Your task to perform on an android device: Open Google Maps and go to "Timeline" Image 0: 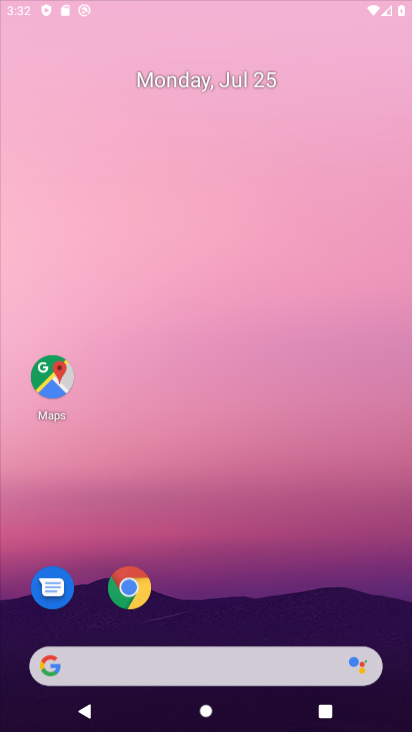
Step 0: click (216, 73)
Your task to perform on an android device: Open Google Maps and go to "Timeline" Image 1: 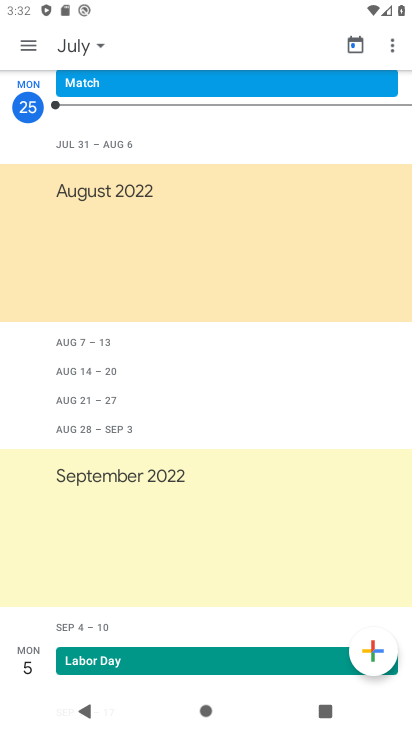
Step 1: drag from (183, 429) to (239, 171)
Your task to perform on an android device: Open Google Maps and go to "Timeline" Image 2: 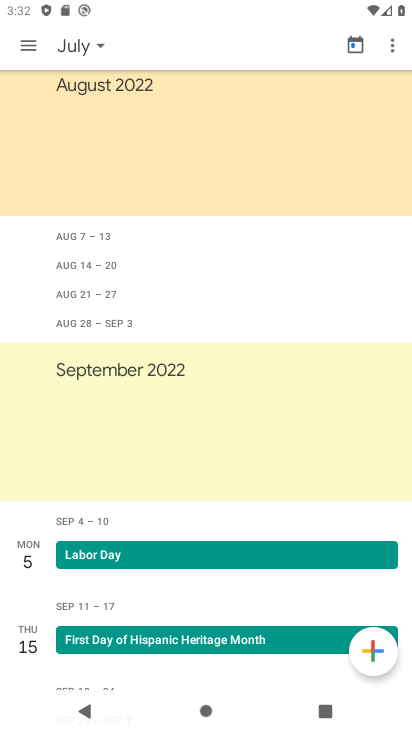
Step 2: press back button
Your task to perform on an android device: Open Google Maps and go to "Timeline" Image 3: 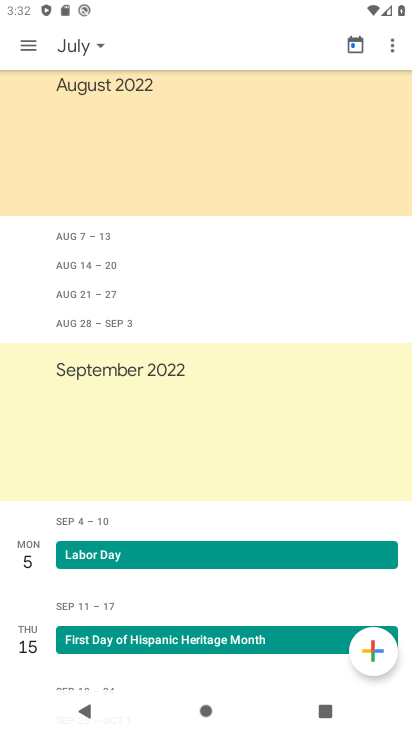
Step 3: press back button
Your task to perform on an android device: Open Google Maps and go to "Timeline" Image 4: 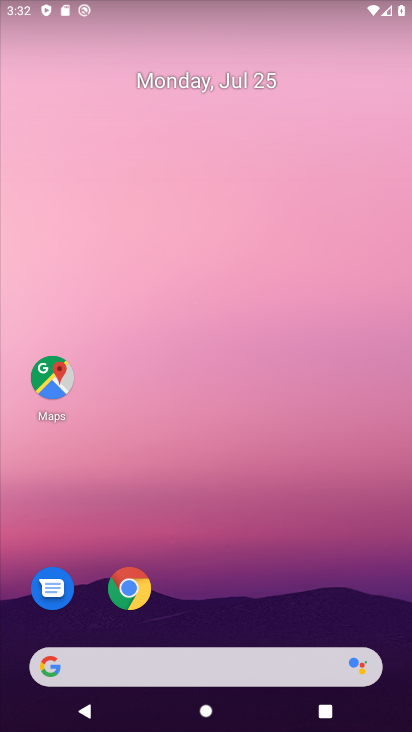
Step 4: drag from (232, 610) to (188, 182)
Your task to perform on an android device: Open Google Maps and go to "Timeline" Image 5: 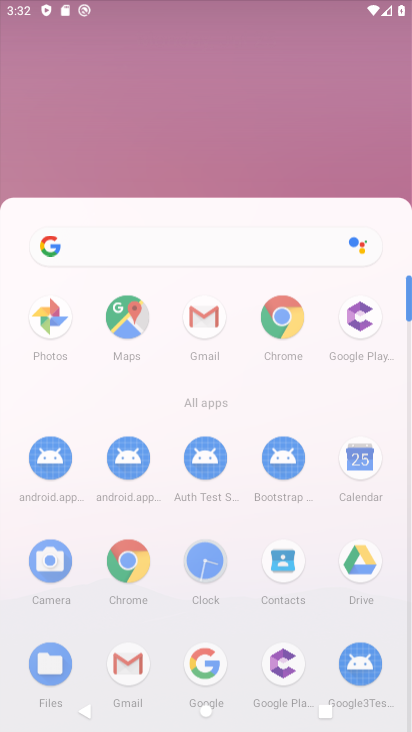
Step 5: drag from (209, 526) to (204, 9)
Your task to perform on an android device: Open Google Maps and go to "Timeline" Image 6: 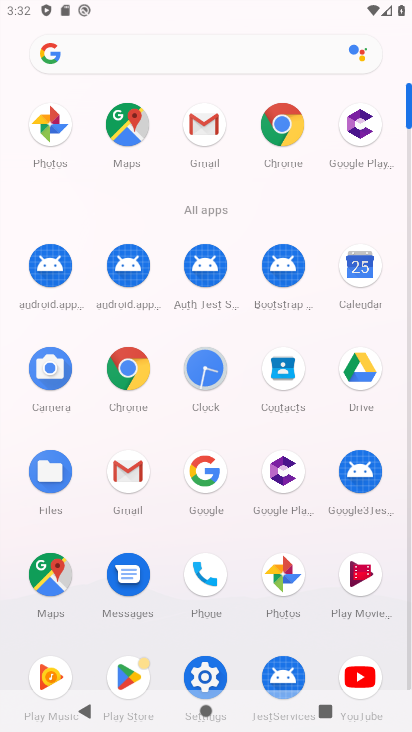
Step 6: drag from (204, 308) to (248, 33)
Your task to perform on an android device: Open Google Maps and go to "Timeline" Image 7: 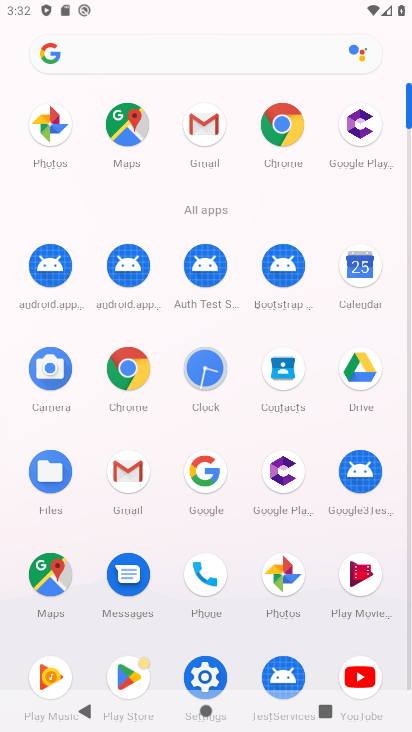
Step 7: click (46, 567)
Your task to perform on an android device: Open Google Maps and go to "Timeline" Image 8: 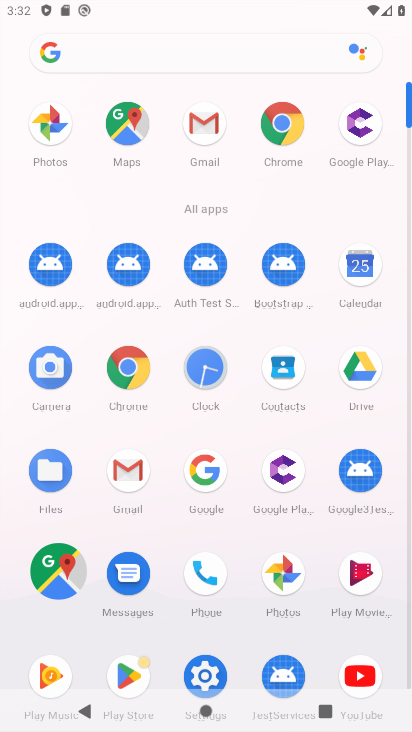
Step 8: click (46, 567)
Your task to perform on an android device: Open Google Maps and go to "Timeline" Image 9: 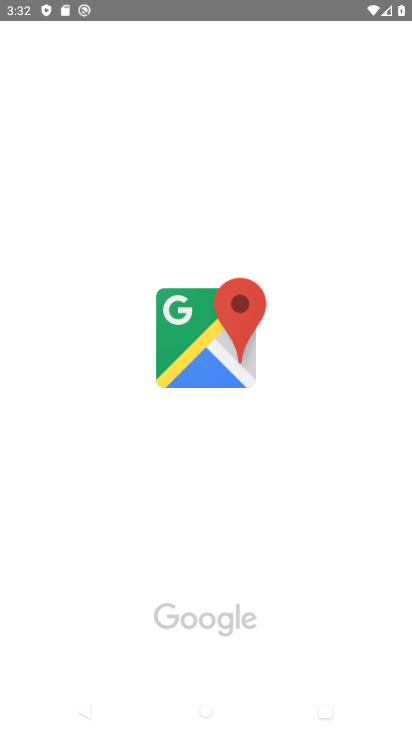
Step 9: click (46, 567)
Your task to perform on an android device: Open Google Maps and go to "Timeline" Image 10: 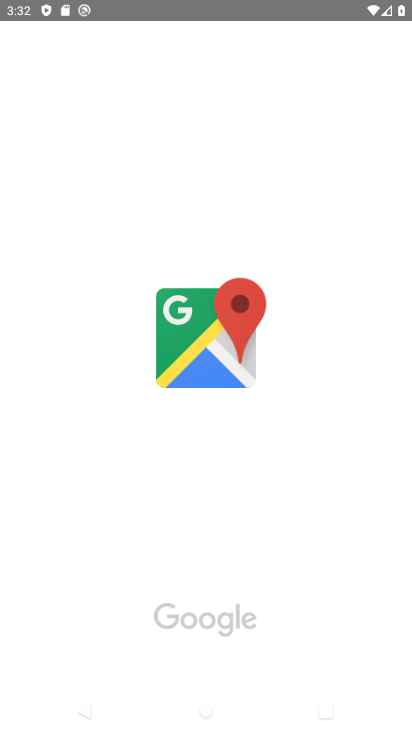
Step 10: click (220, 330)
Your task to perform on an android device: Open Google Maps and go to "Timeline" Image 11: 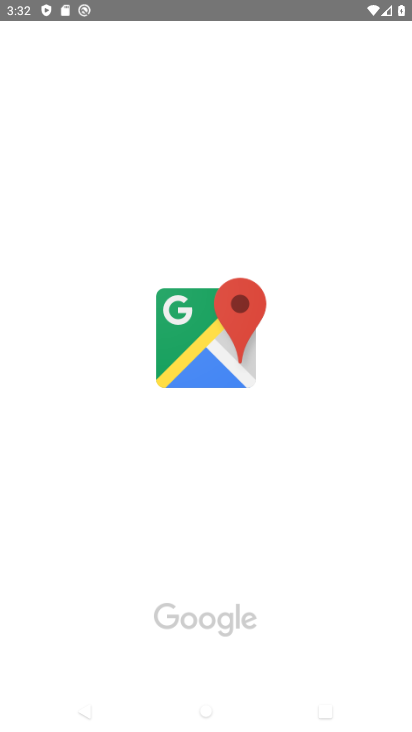
Step 11: click (220, 330)
Your task to perform on an android device: Open Google Maps and go to "Timeline" Image 12: 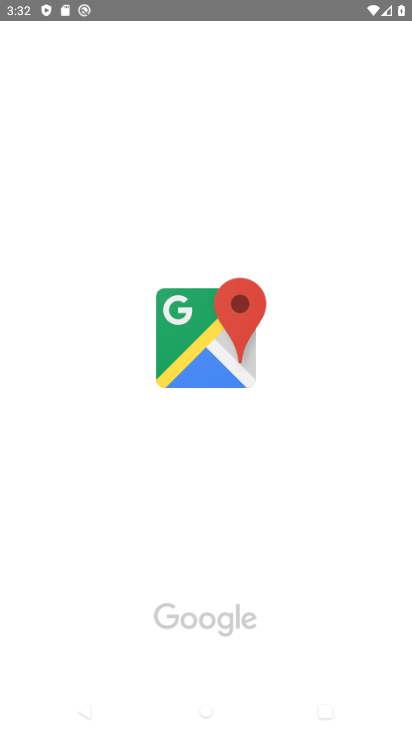
Step 12: click (220, 330)
Your task to perform on an android device: Open Google Maps and go to "Timeline" Image 13: 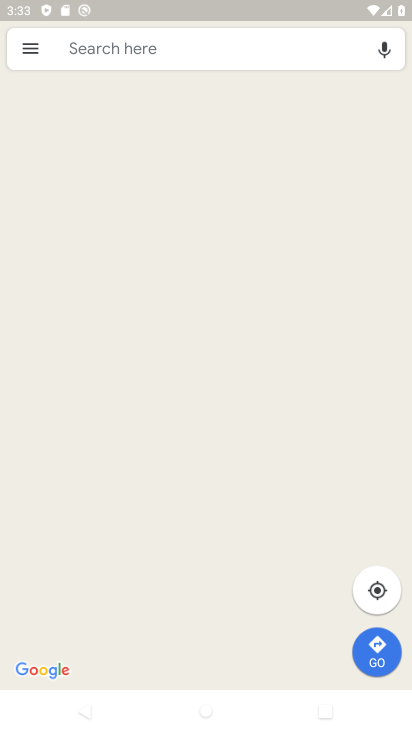
Step 13: click (34, 52)
Your task to perform on an android device: Open Google Maps and go to "Timeline" Image 14: 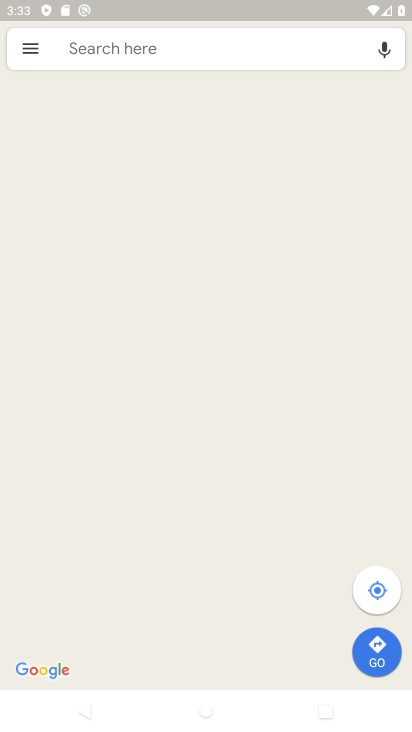
Step 14: click (35, 51)
Your task to perform on an android device: Open Google Maps and go to "Timeline" Image 15: 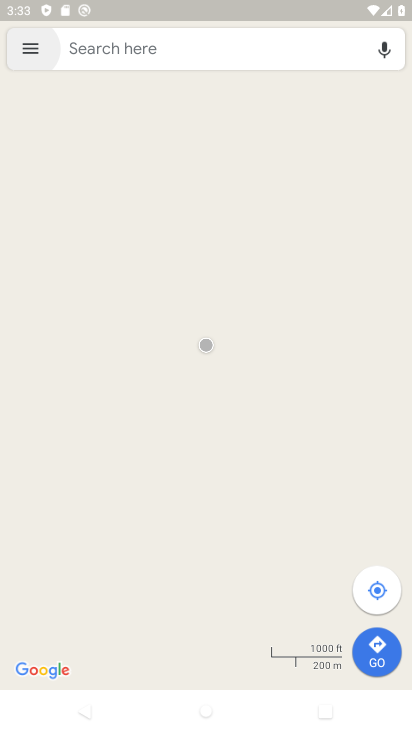
Step 15: click (39, 51)
Your task to perform on an android device: Open Google Maps and go to "Timeline" Image 16: 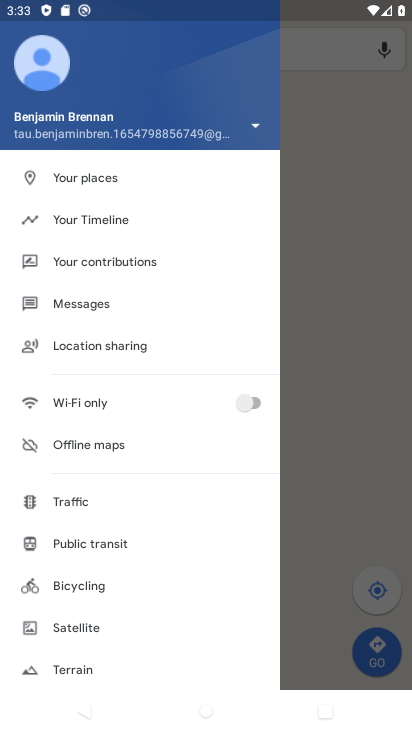
Step 16: click (345, 249)
Your task to perform on an android device: Open Google Maps and go to "Timeline" Image 17: 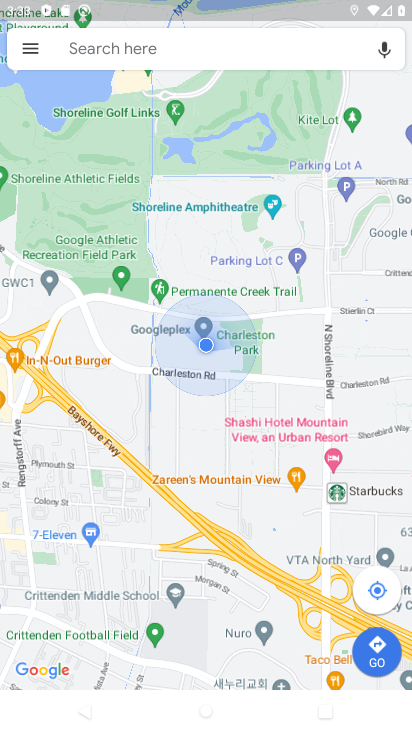
Step 17: click (40, 52)
Your task to perform on an android device: Open Google Maps and go to "Timeline" Image 18: 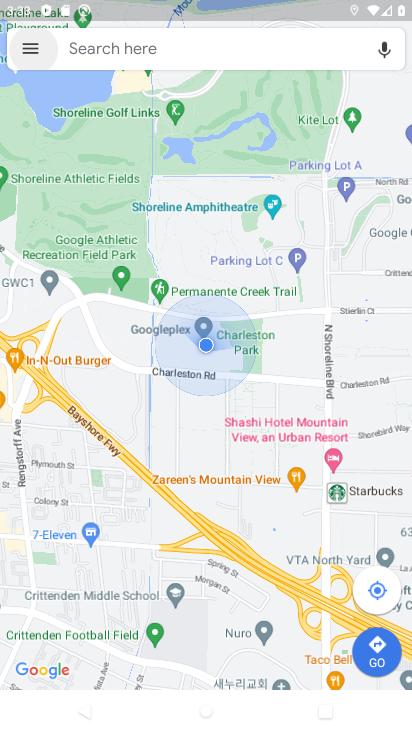
Step 18: click (41, 57)
Your task to perform on an android device: Open Google Maps and go to "Timeline" Image 19: 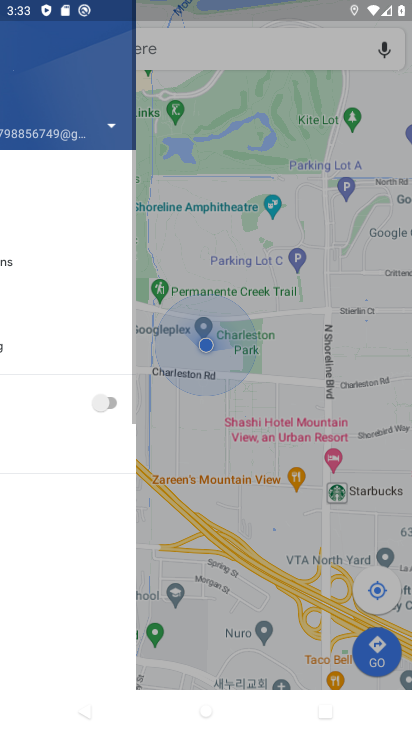
Step 19: click (41, 57)
Your task to perform on an android device: Open Google Maps and go to "Timeline" Image 20: 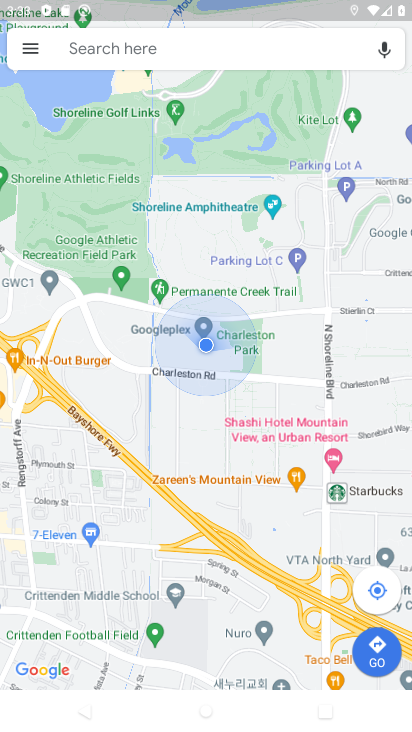
Step 20: click (34, 37)
Your task to perform on an android device: Open Google Maps and go to "Timeline" Image 21: 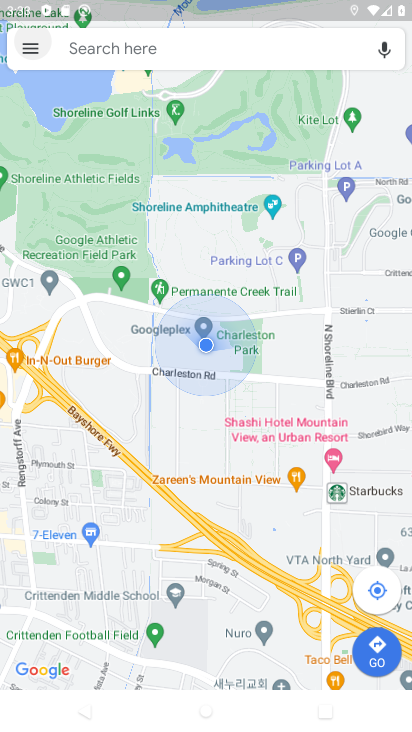
Step 21: click (34, 37)
Your task to perform on an android device: Open Google Maps and go to "Timeline" Image 22: 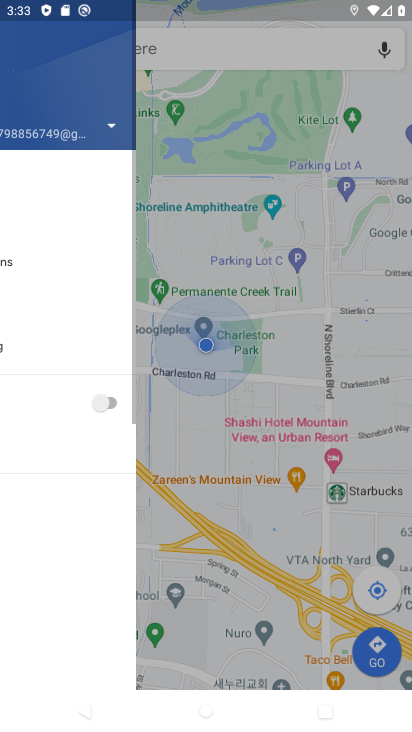
Step 22: click (31, 43)
Your task to perform on an android device: Open Google Maps and go to "Timeline" Image 23: 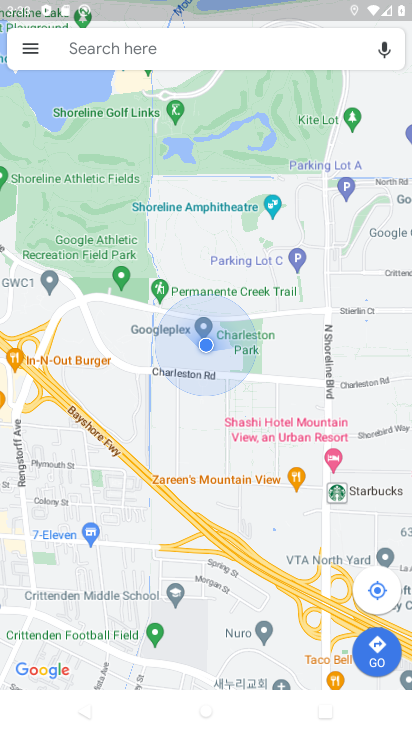
Step 23: click (29, 34)
Your task to perform on an android device: Open Google Maps and go to "Timeline" Image 24: 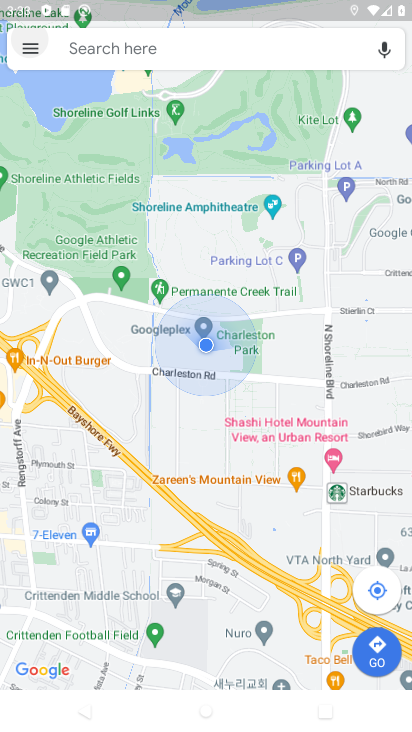
Step 24: click (34, 48)
Your task to perform on an android device: Open Google Maps and go to "Timeline" Image 25: 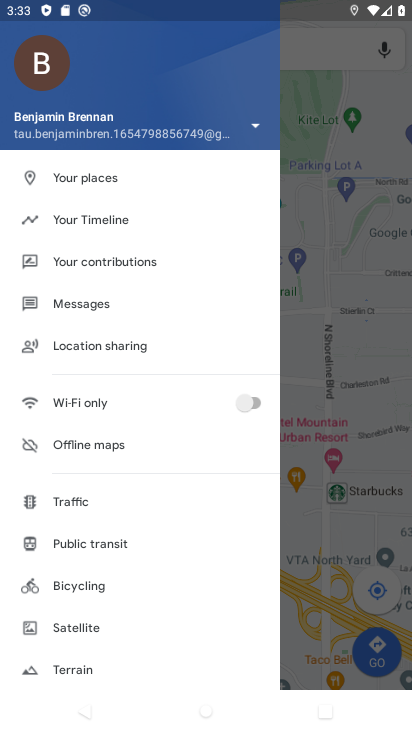
Step 25: click (95, 215)
Your task to perform on an android device: Open Google Maps and go to "Timeline" Image 26: 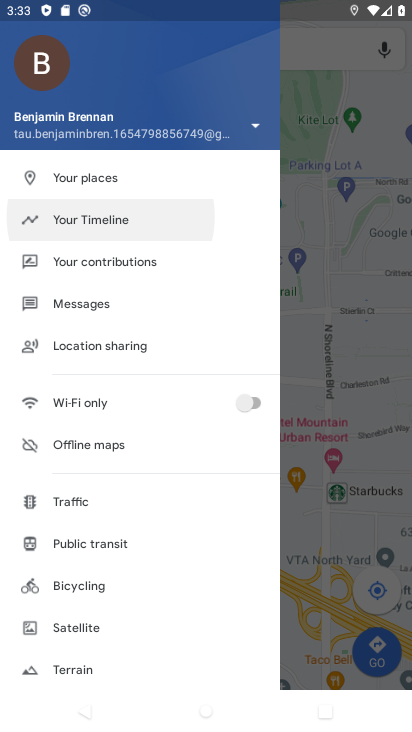
Step 26: click (95, 215)
Your task to perform on an android device: Open Google Maps and go to "Timeline" Image 27: 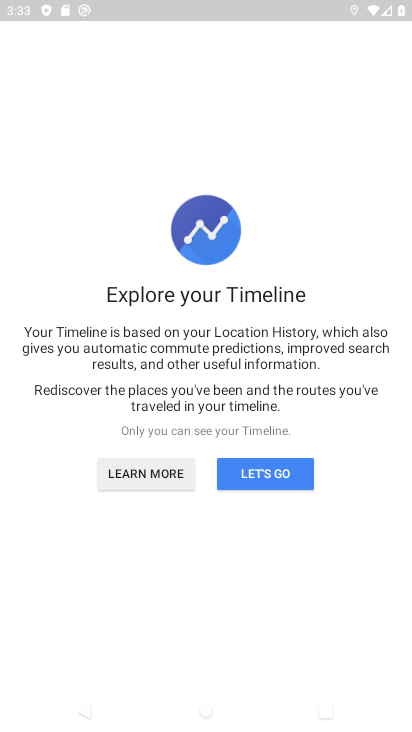
Step 27: click (256, 475)
Your task to perform on an android device: Open Google Maps and go to "Timeline" Image 28: 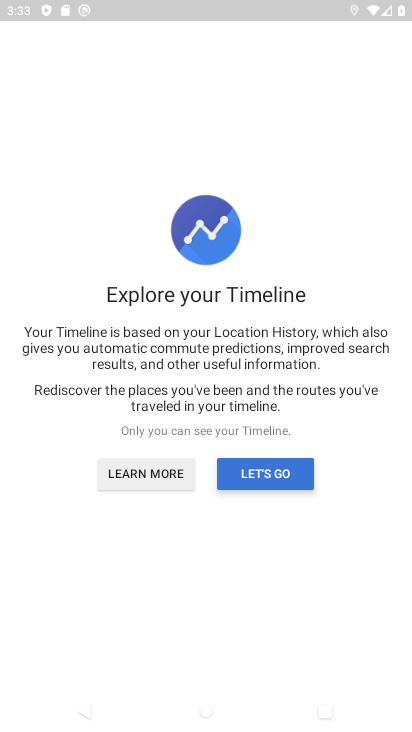
Step 28: click (257, 473)
Your task to perform on an android device: Open Google Maps and go to "Timeline" Image 29: 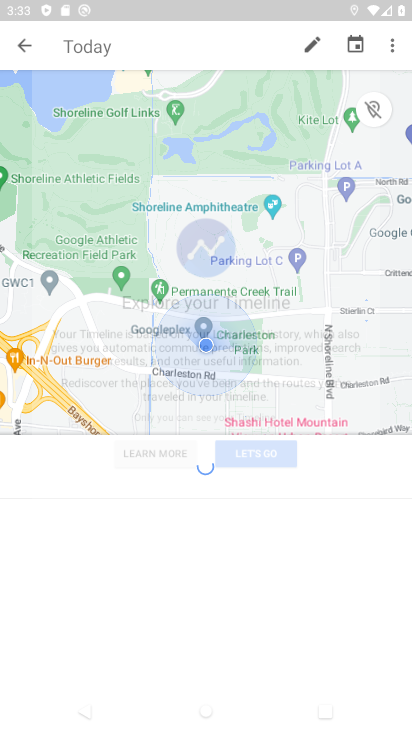
Step 29: task complete